Your task to perform on an android device: turn pop-ups on in chrome Image 0: 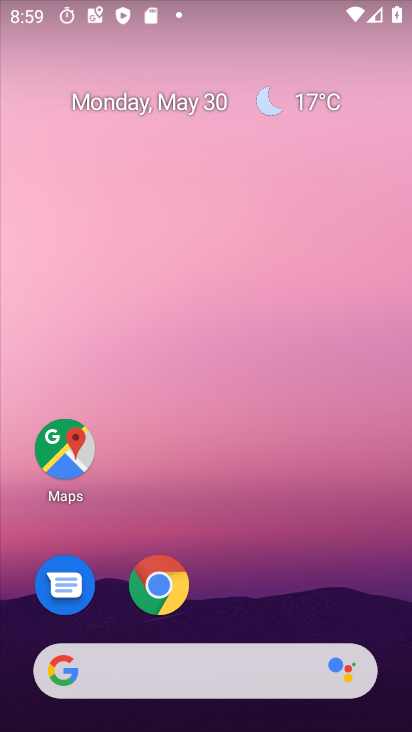
Step 0: drag from (408, 197) to (411, 28)
Your task to perform on an android device: turn pop-ups on in chrome Image 1: 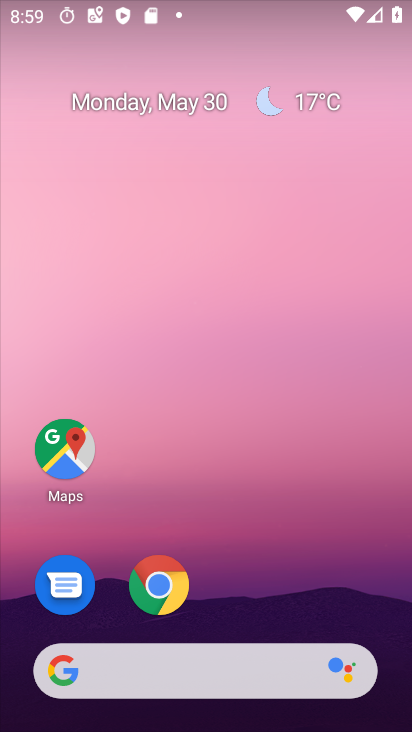
Step 1: click (156, 579)
Your task to perform on an android device: turn pop-ups on in chrome Image 2: 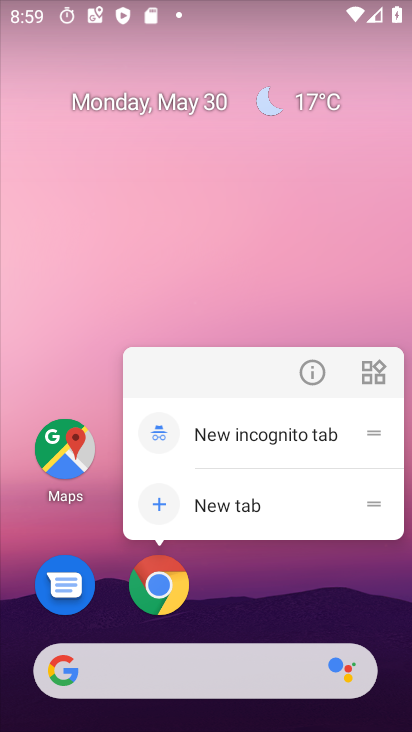
Step 2: click (319, 375)
Your task to perform on an android device: turn pop-ups on in chrome Image 3: 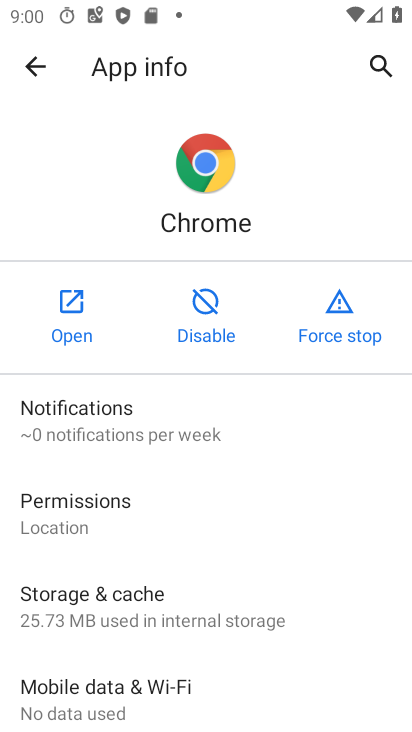
Step 3: click (75, 305)
Your task to perform on an android device: turn pop-ups on in chrome Image 4: 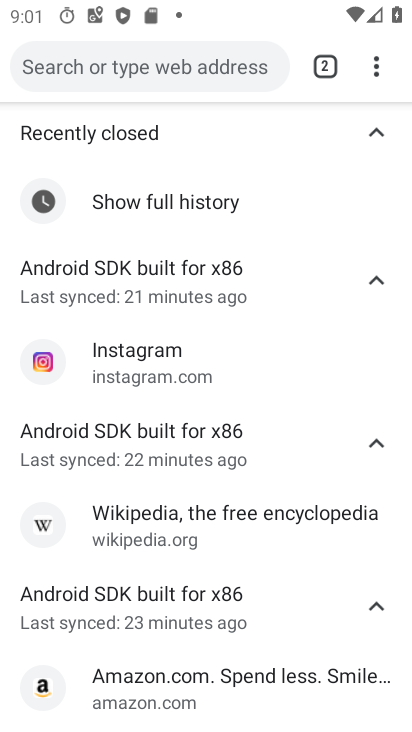
Step 4: click (376, 61)
Your task to perform on an android device: turn pop-ups on in chrome Image 5: 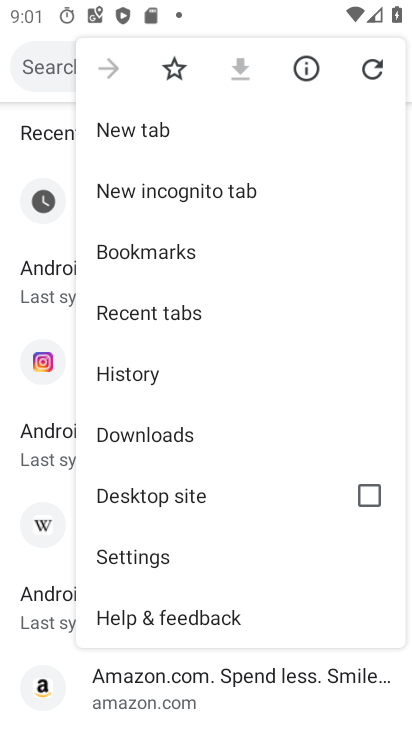
Step 5: click (142, 556)
Your task to perform on an android device: turn pop-ups on in chrome Image 6: 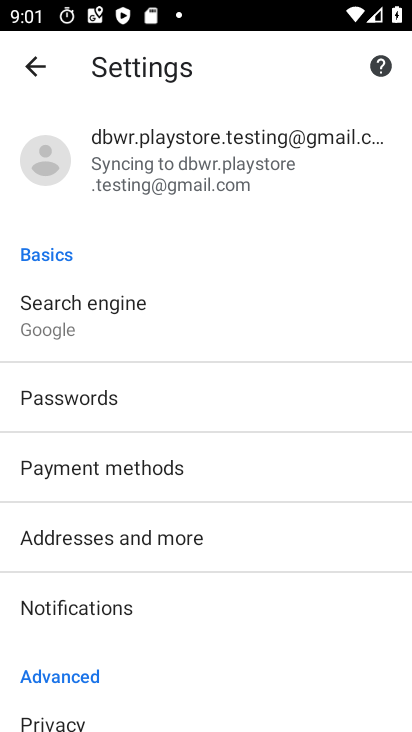
Step 6: drag from (280, 288) to (322, 147)
Your task to perform on an android device: turn pop-ups on in chrome Image 7: 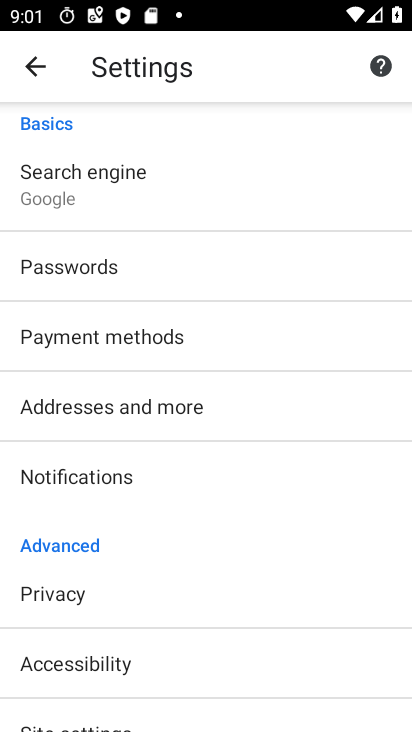
Step 7: drag from (153, 652) to (288, 213)
Your task to perform on an android device: turn pop-ups on in chrome Image 8: 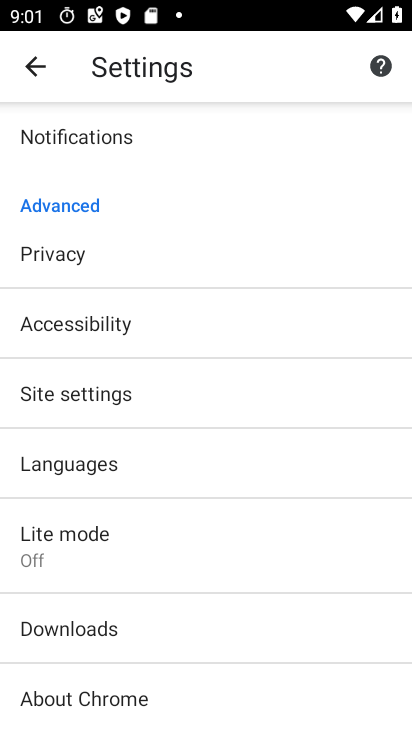
Step 8: click (112, 404)
Your task to perform on an android device: turn pop-ups on in chrome Image 9: 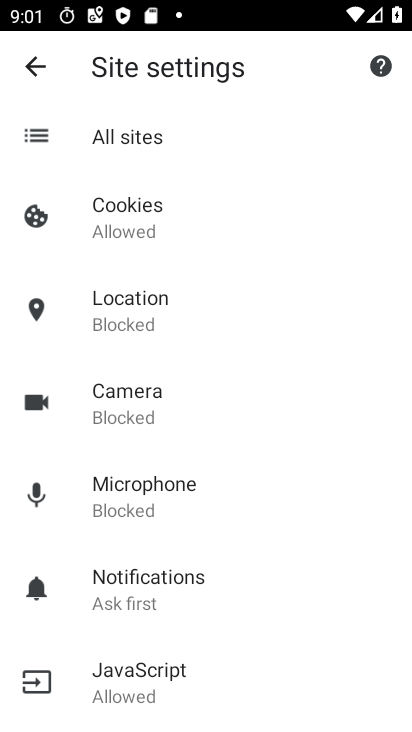
Step 9: drag from (271, 258) to (331, 136)
Your task to perform on an android device: turn pop-ups on in chrome Image 10: 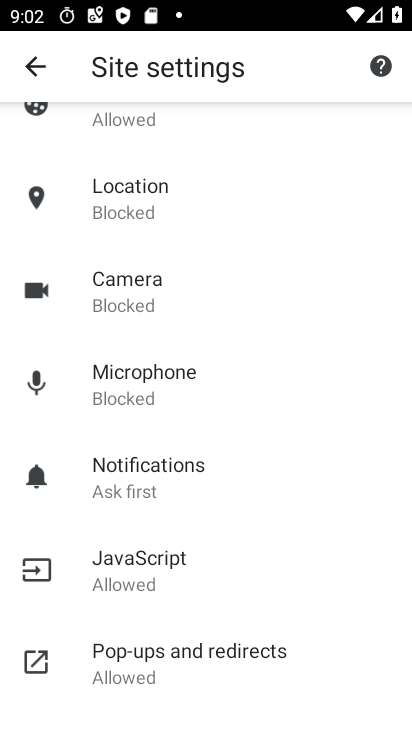
Step 10: click (178, 645)
Your task to perform on an android device: turn pop-ups on in chrome Image 11: 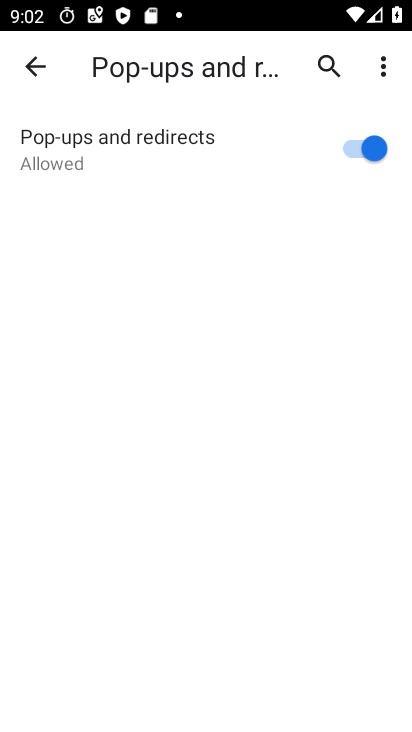
Step 11: task complete